Your task to perform on an android device: choose inbox layout in the gmail app Image 0: 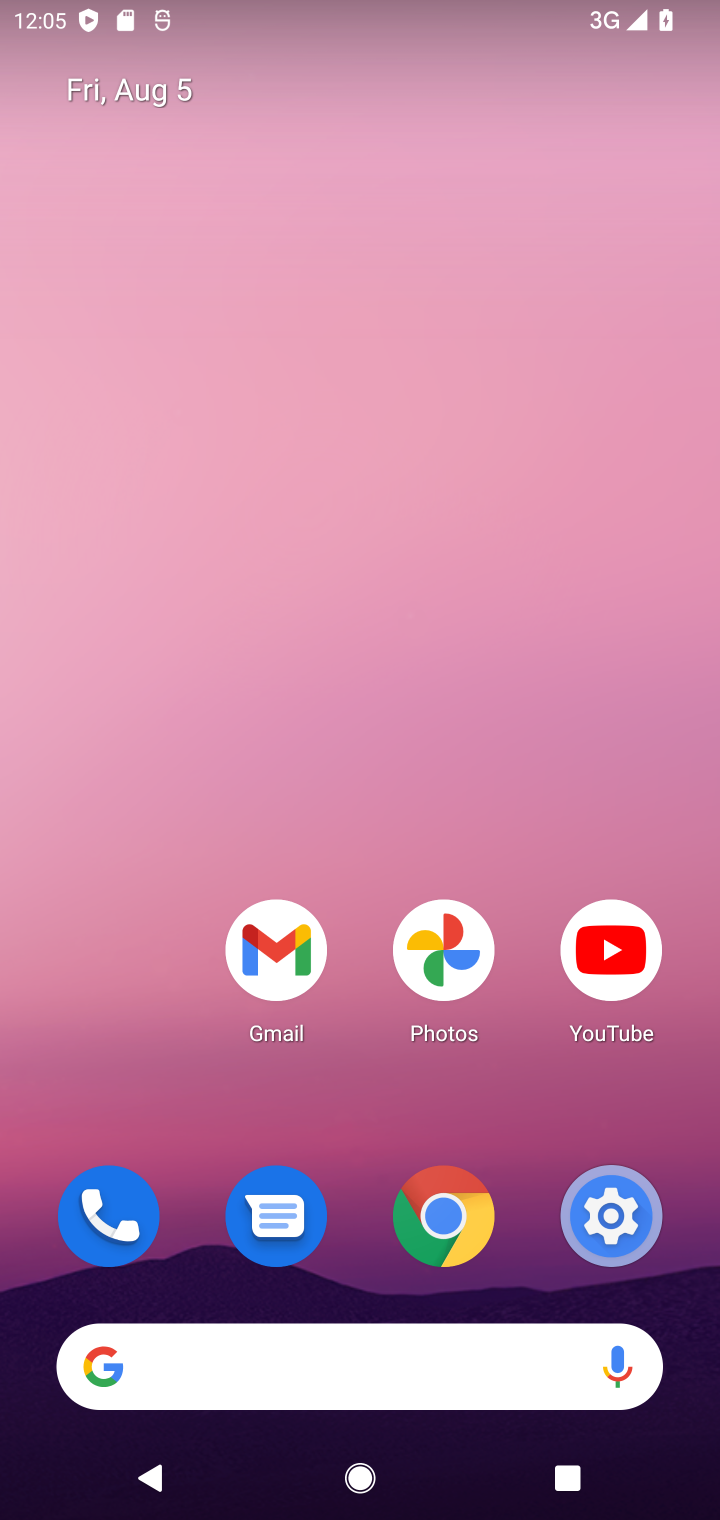
Step 0: click (297, 950)
Your task to perform on an android device: choose inbox layout in the gmail app Image 1: 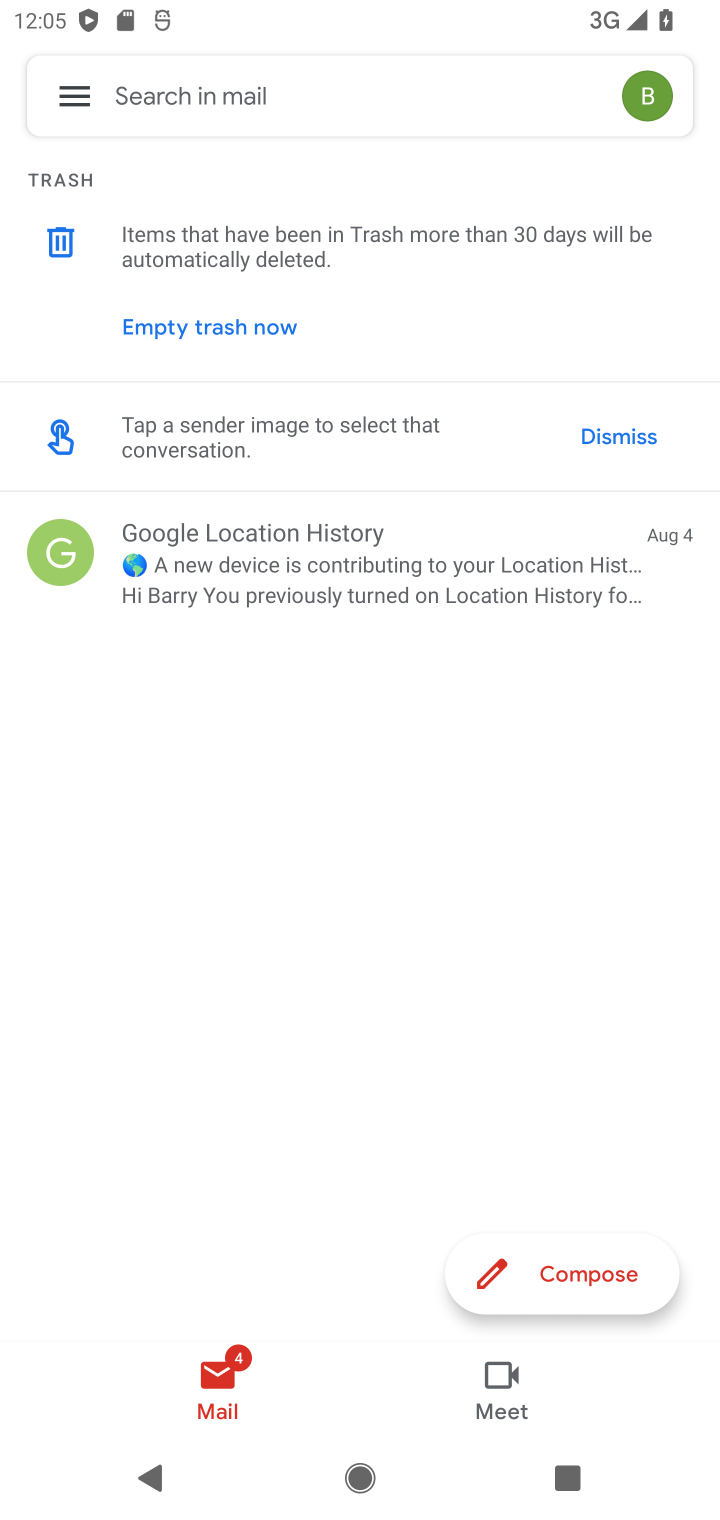
Step 1: click (74, 89)
Your task to perform on an android device: choose inbox layout in the gmail app Image 2: 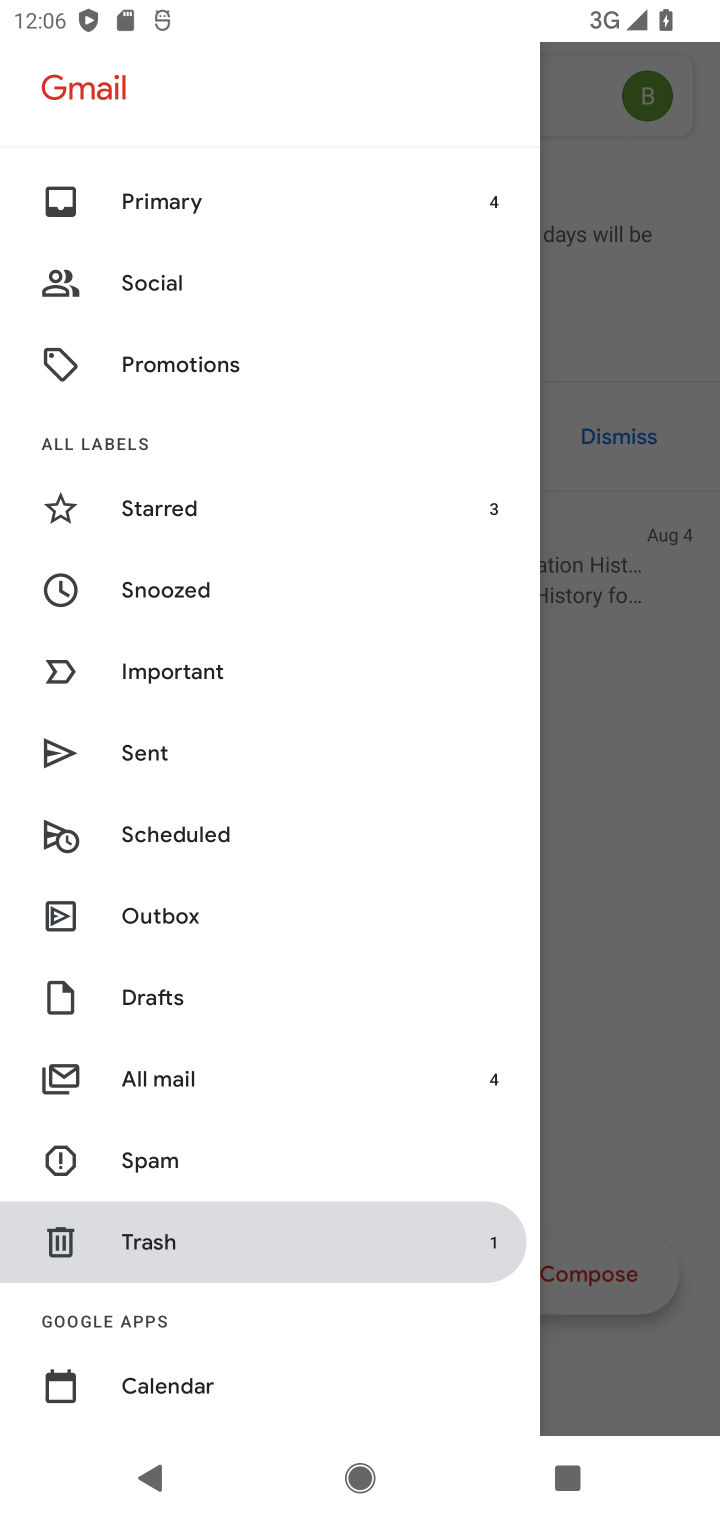
Step 2: drag from (352, 1373) to (283, 470)
Your task to perform on an android device: choose inbox layout in the gmail app Image 3: 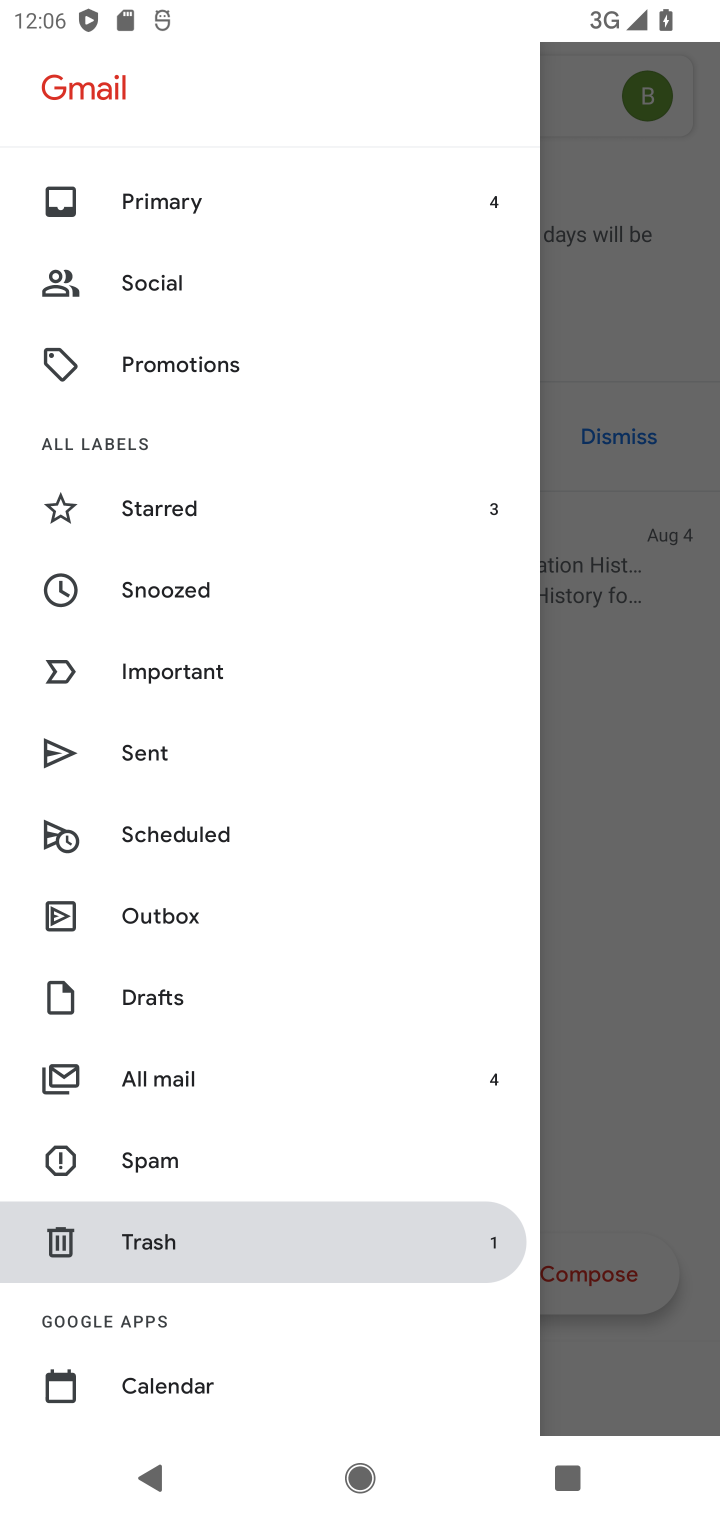
Step 3: drag from (447, 1329) to (526, 261)
Your task to perform on an android device: choose inbox layout in the gmail app Image 4: 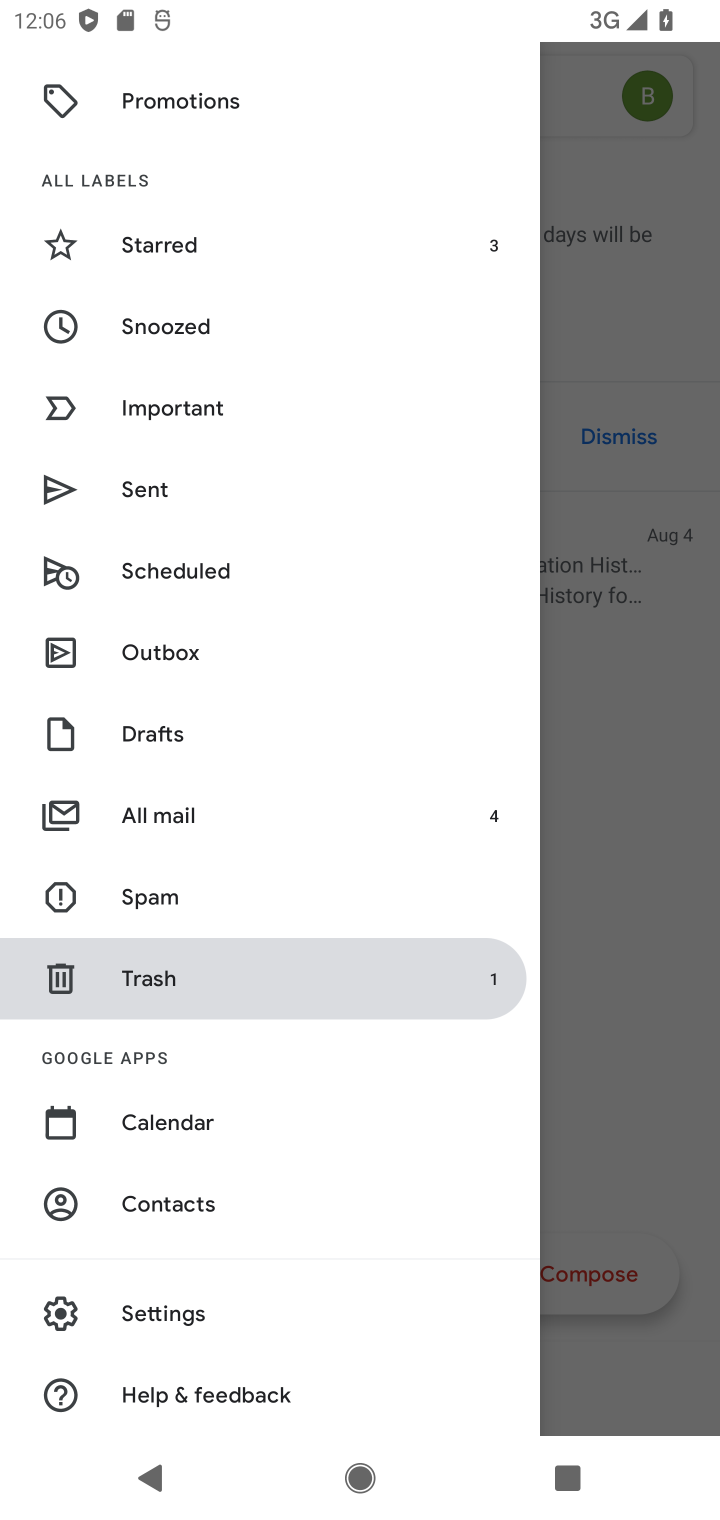
Step 4: click (202, 1323)
Your task to perform on an android device: choose inbox layout in the gmail app Image 5: 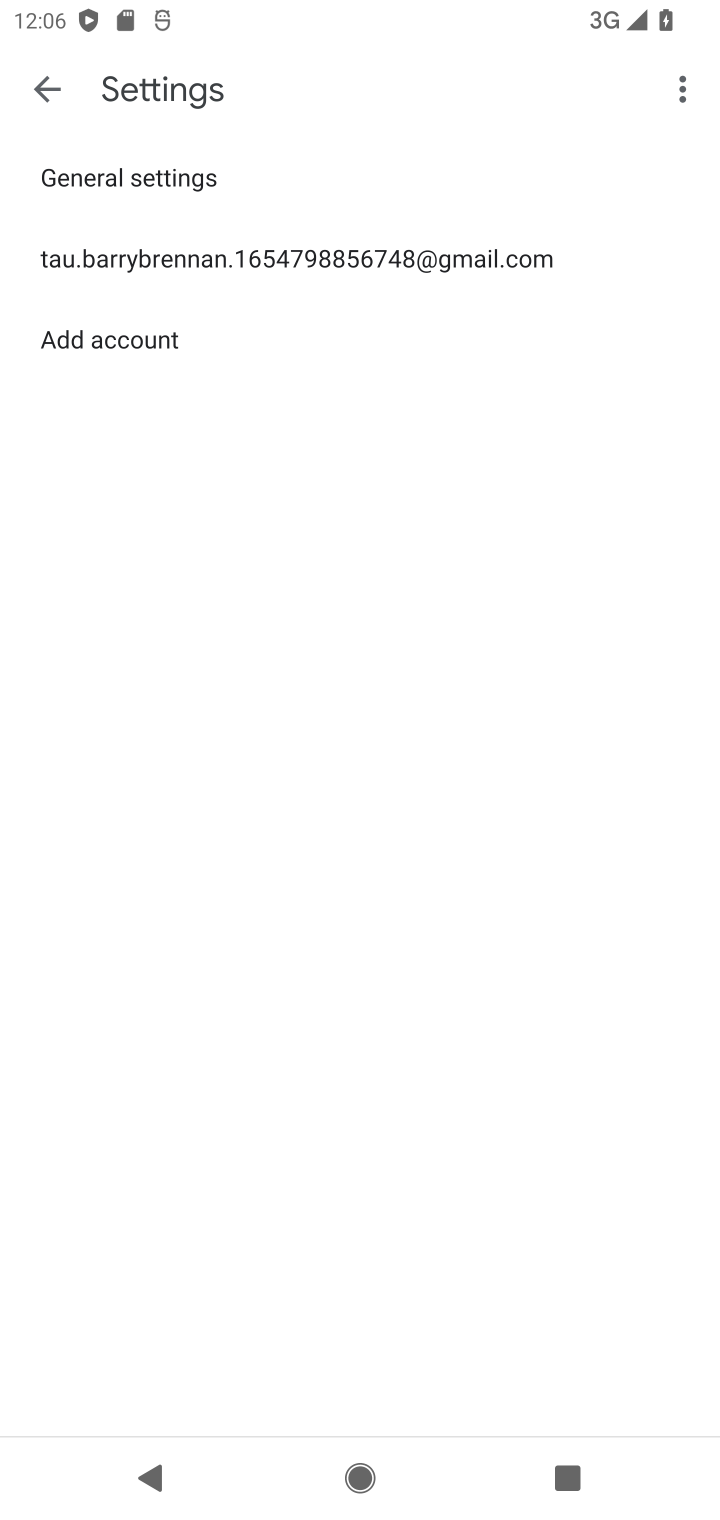
Step 5: click (183, 263)
Your task to perform on an android device: choose inbox layout in the gmail app Image 6: 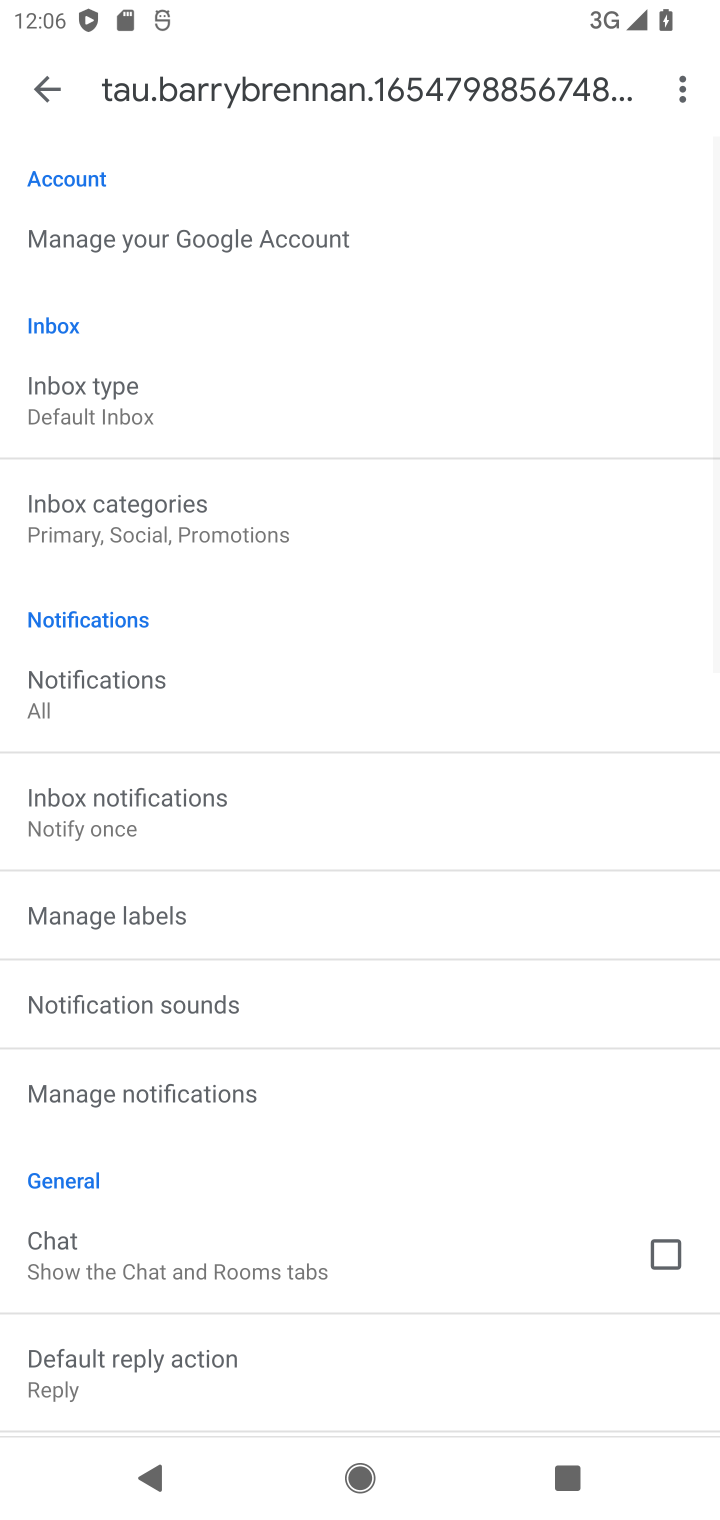
Step 6: click (107, 417)
Your task to perform on an android device: choose inbox layout in the gmail app Image 7: 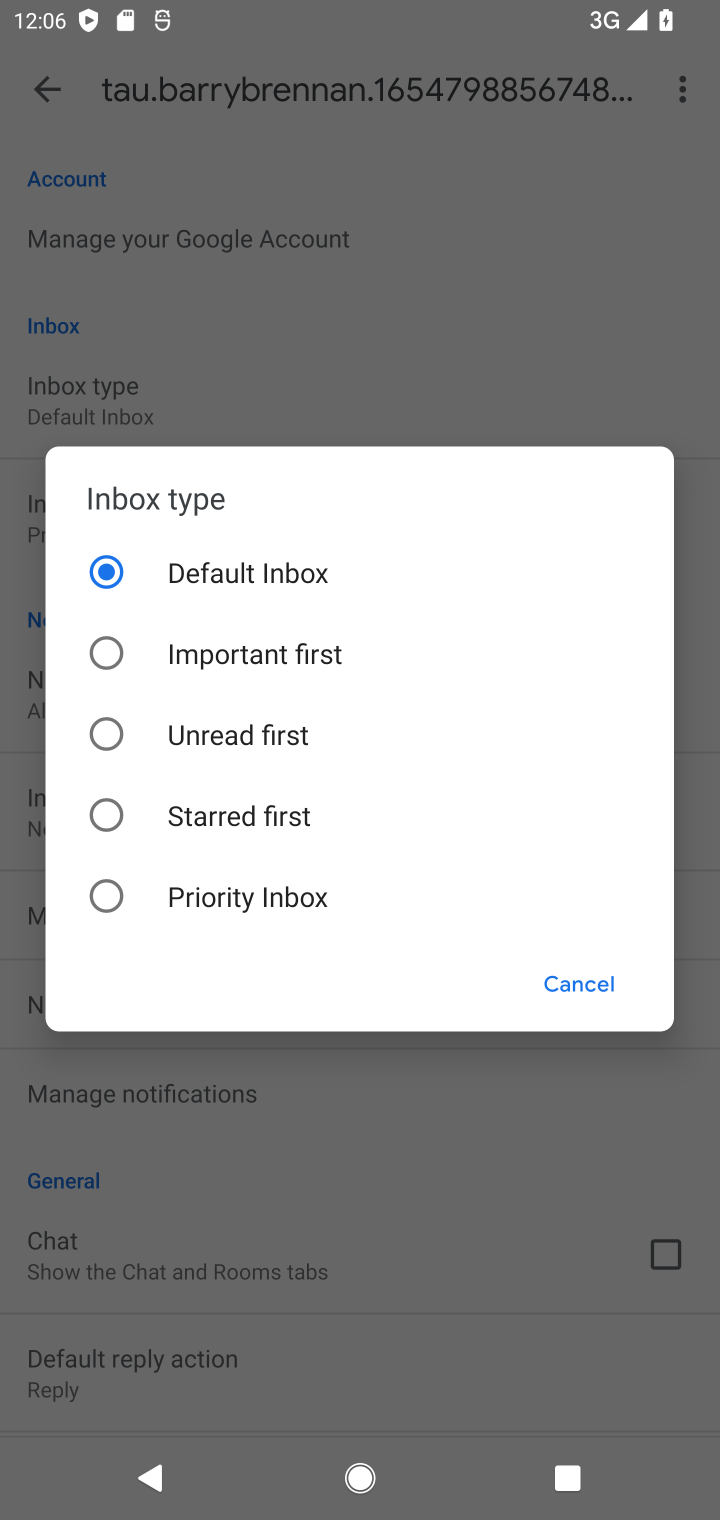
Step 7: click (111, 907)
Your task to perform on an android device: choose inbox layout in the gmail app Image 8: 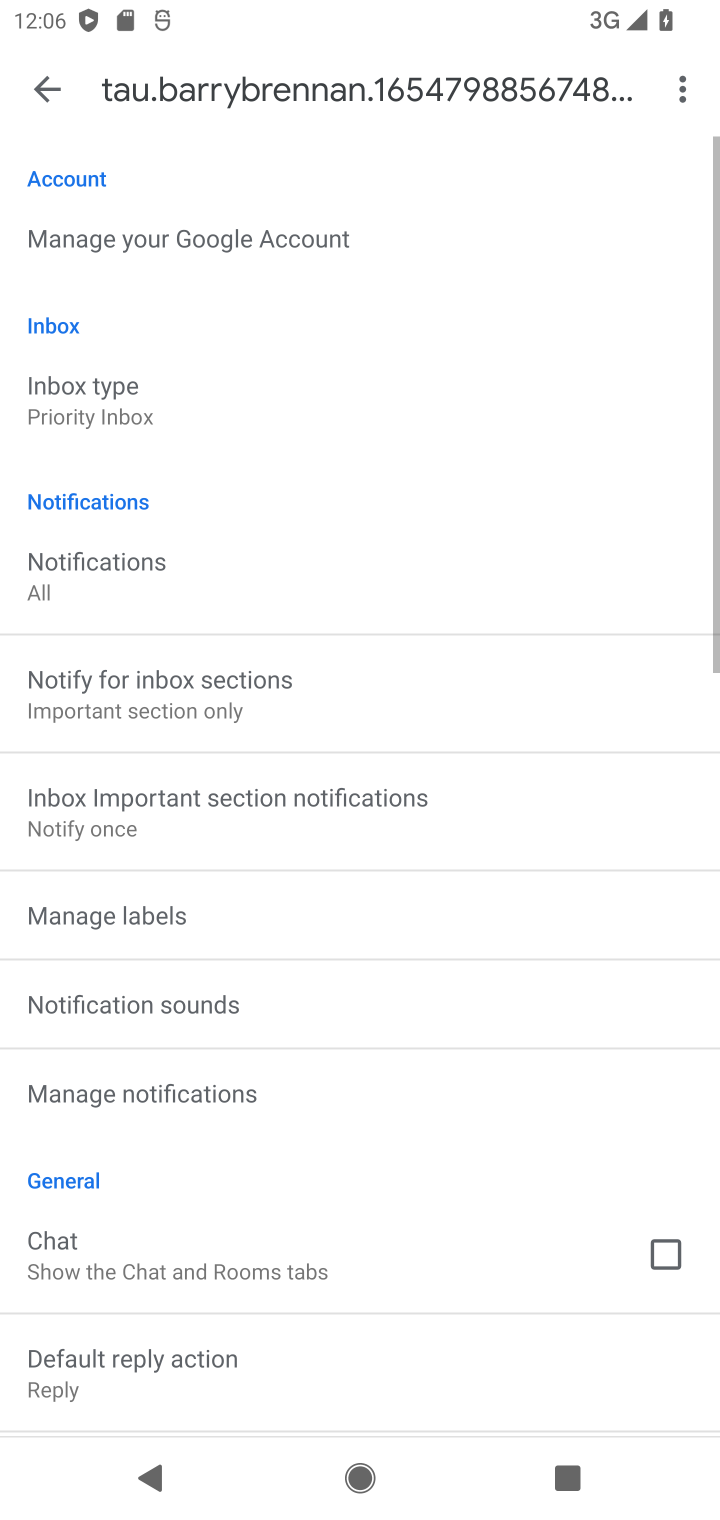
Step 8: task complete